Your task to perform on an android device: find which apps use the phone's location Image 0: 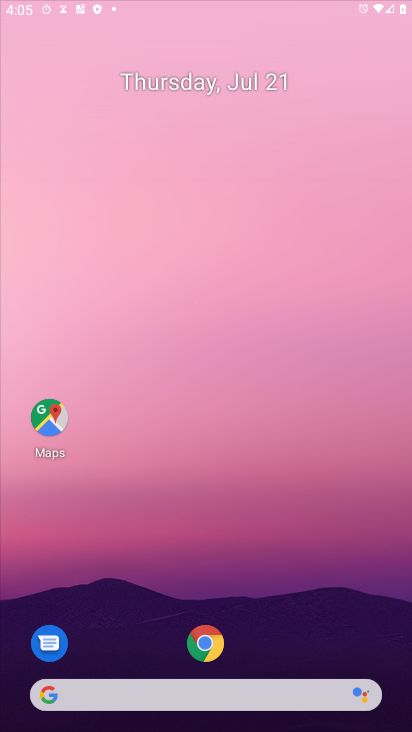
Step 0: press home button
Your task to perform on an android device: find which apps use the phone's location Image 1: 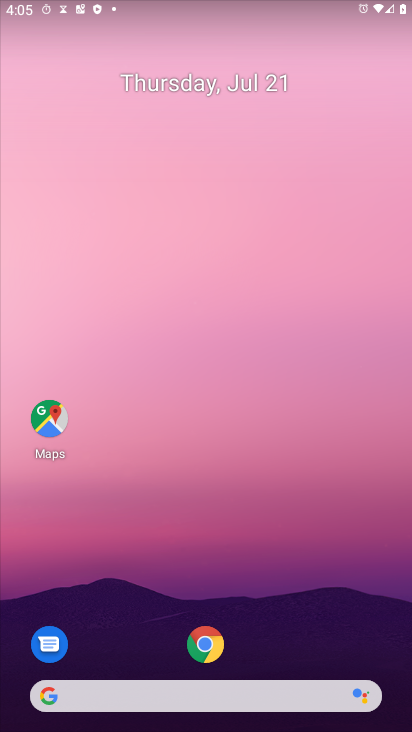
Step 1: drag from (309, 607) to (287, 46)
Your task to perform on an android device: find which apps use the phone's location Image 2: 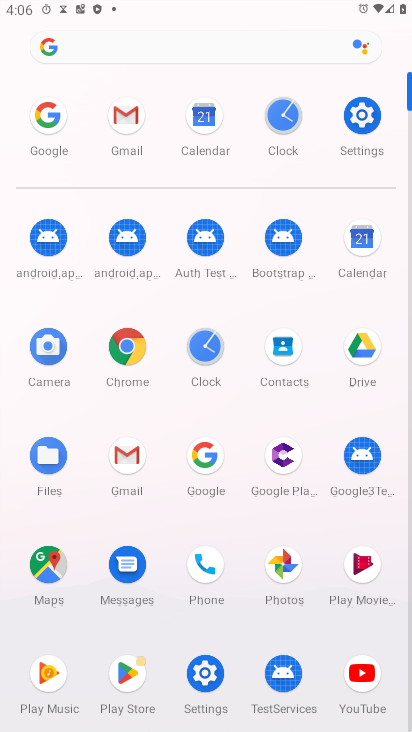
Step 2: click (368, 120)
Your task to perform on an android device: find which apps use the phone's location Image 3: 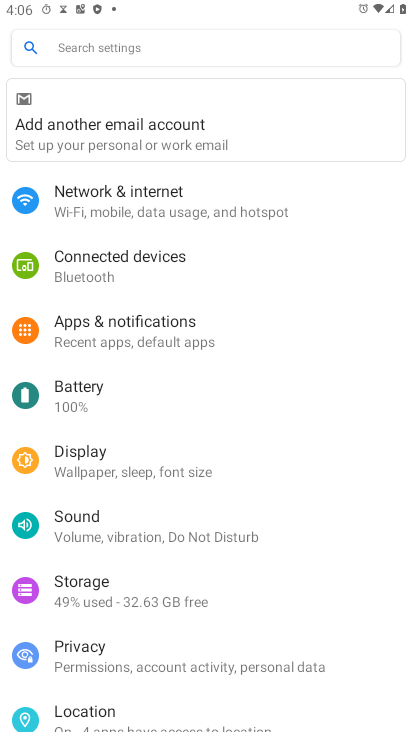
Step 3: click (84, 717)
Your task to perform on an android device: find which apps use the phone's location Image 4: 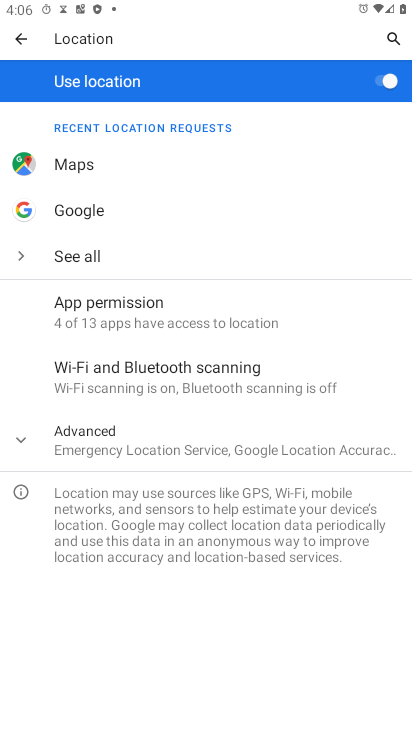
Step 4: click (100, 311)
Your task to perform on an android device: find which apps use the phone's location Image 5: 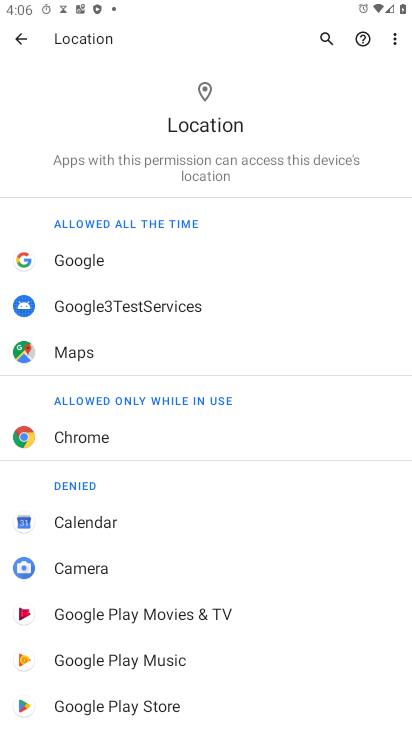
Step 5: task complete